Your task to perform on an android device: Open Amazon Image 0: 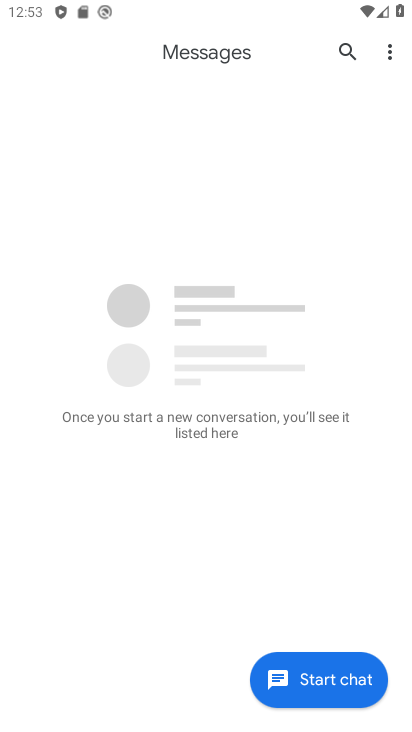
Step 0: press home button
Your task to perform on an android device: Open Amazon Image 1: 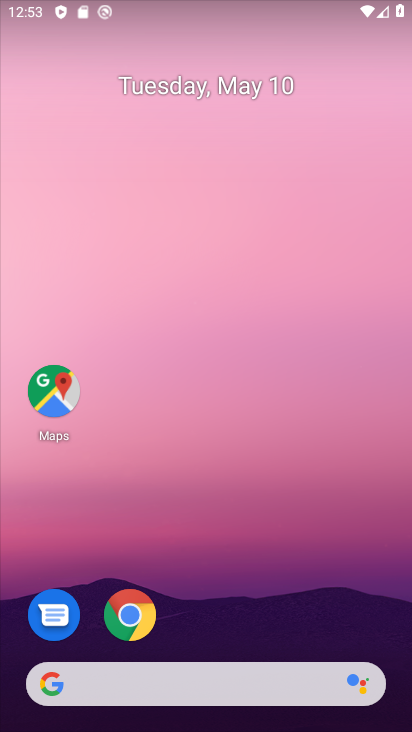
Step 1: click (150, 619)
Your task to perform on an android device: Open Amazon Image 2: 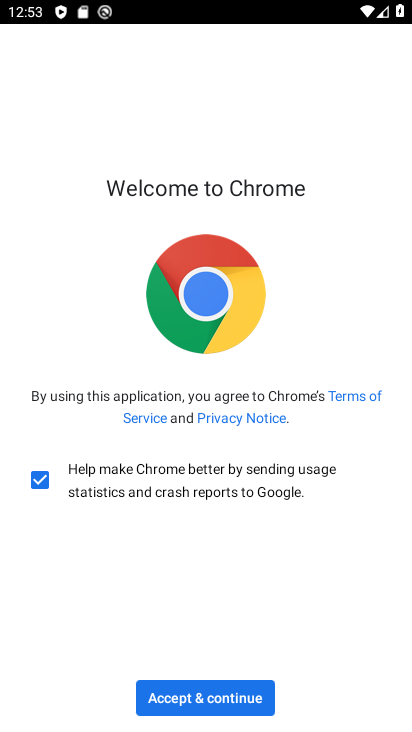
Step 2: click (219, 697)
Your task to perform on an android device: Open Amazon Image 3: 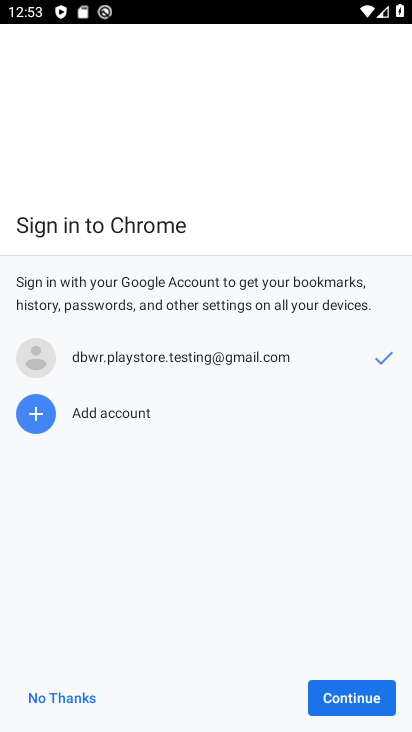
Step 3: click (371, 677)
Your task to perform on an android device: Open Amazon Image 4: 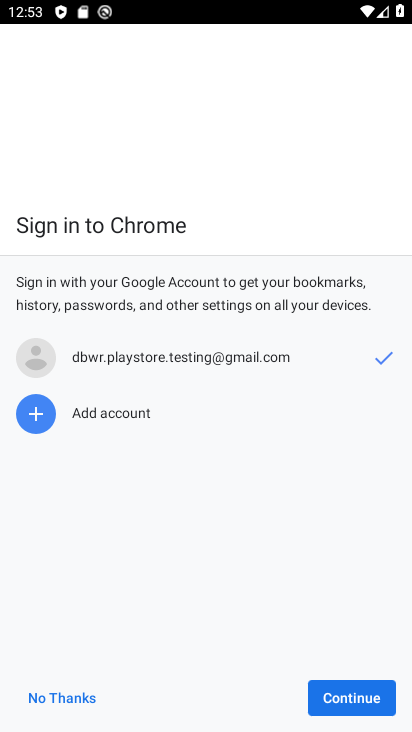
Step 4: click (354, 695)
Your task to perform on an android device: Open Amazon Image 5: 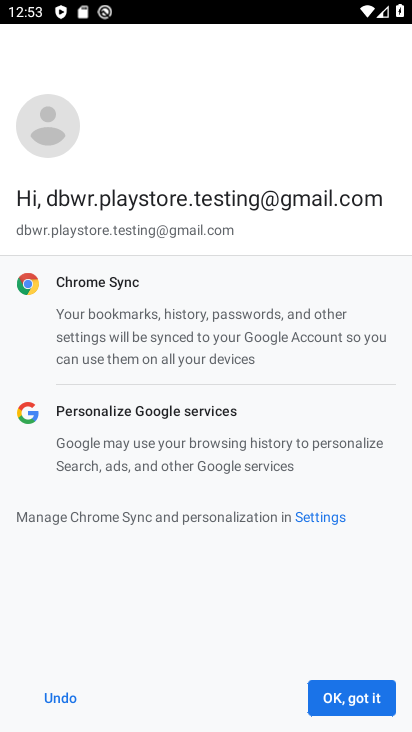
Step 5: click (353, 695)
Your task to perform on an android device: Open Amazon Image 6: 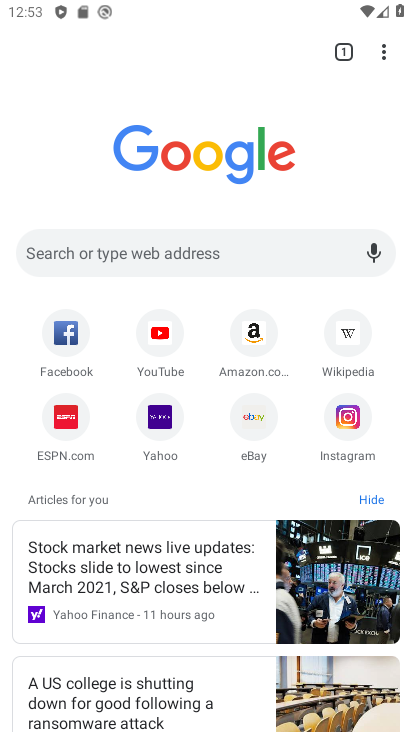
Step 6: click (252, 345)
Your task to perform on an android device: Open Amazon Image 7: 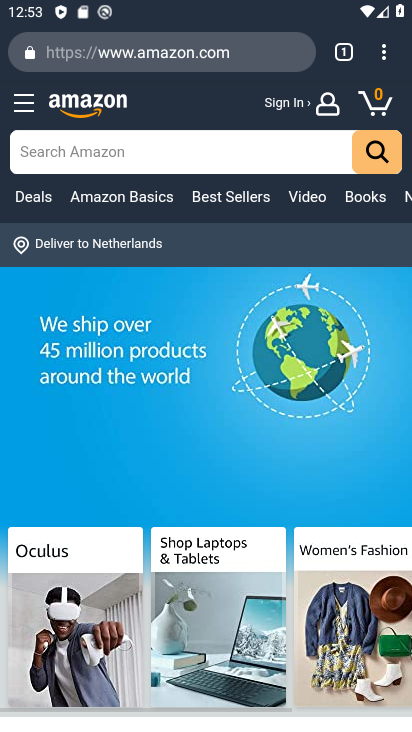
Step 7: task complete